Your task to perform on an android device: Go to settings Image 0: 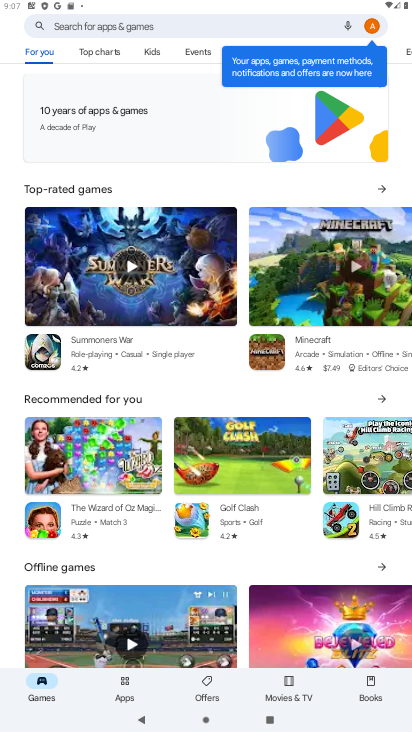
Step 0: press home button
Your task to perform on an android device: Go to settings Image 1: 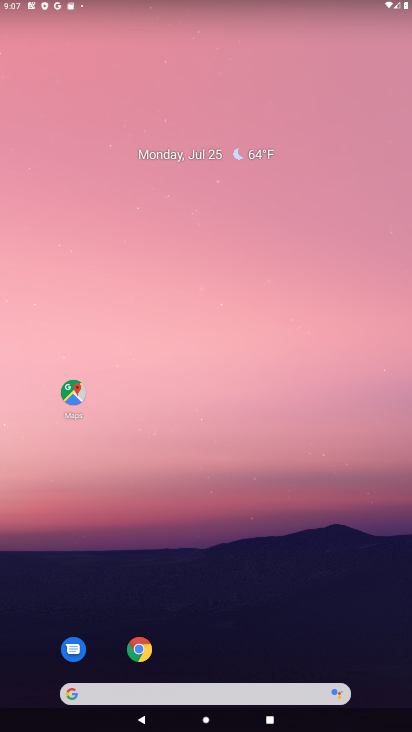
Step 1: drag from (279, 540) to (136, 24)
Your task to perform on an android device: Go to settings Image 2: 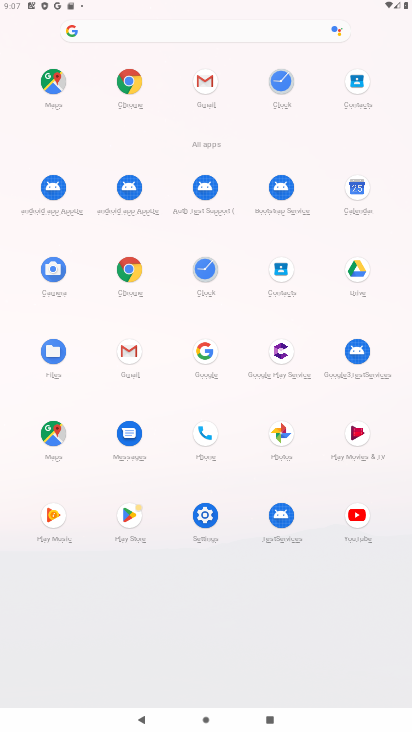
Step 2: click (205, 522)
Your task to perform on an android device: Go to settings Image 3: 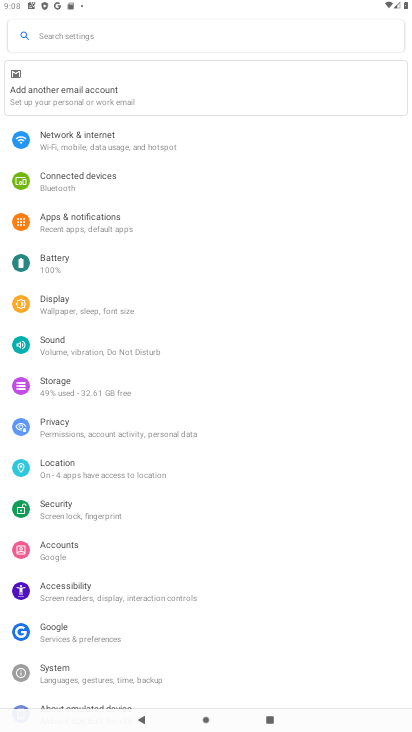
Step 3: task complete